Your task to perform on an android device: turn on notifications settings in the gmail app Image 0: 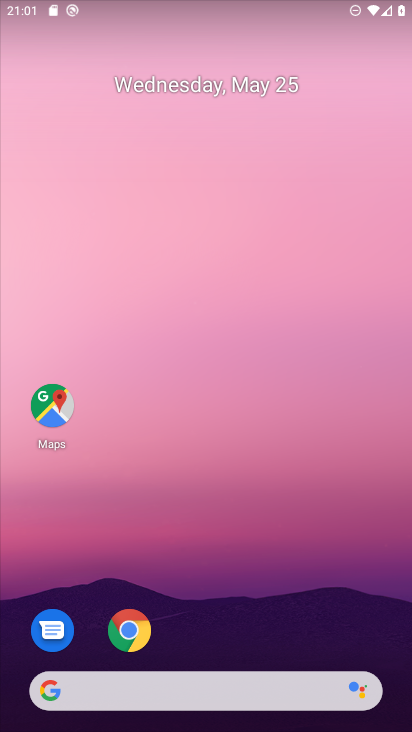
Step 0: drag from (240, 640) to (281, 210)
Your task to perform on an android device: turn on notifications settings in the gmail app Image 1: 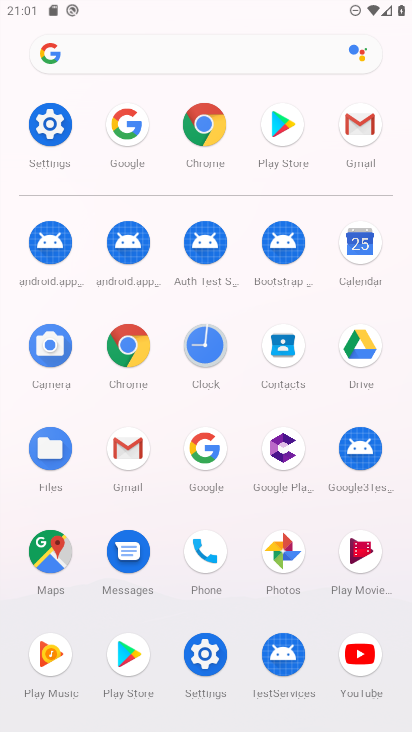
Step 1: click (126, 450)
Your task to perform on an android device: turn on notifications settings in the gmail app Image 2: 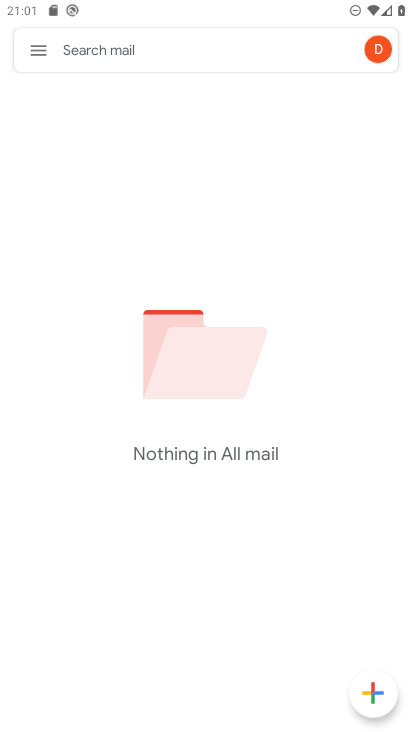
Step 2: drag from (32, 45) to (134, 71)
Your task to perform on an android device: turn on notifications settings in the gmail app Image 3: 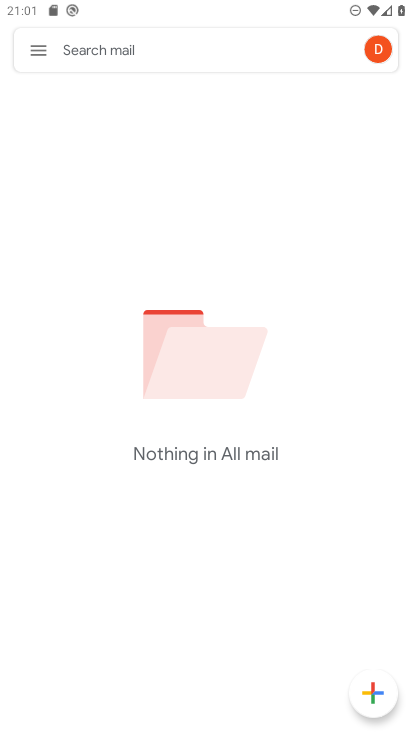
Step 3: click (38, 56)
Your task to perform on an android device: turn on notifications settings in the gmail app Image 4: 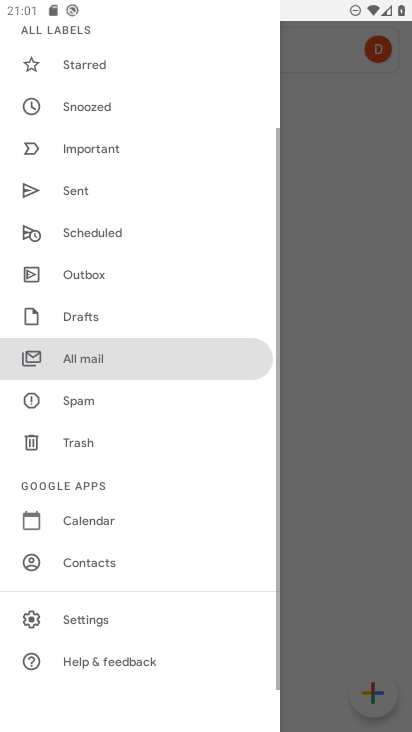
Step 4: click (111, 615)
Your task to perform on an android device: turn on notifications settings in the gmail app Image 5: 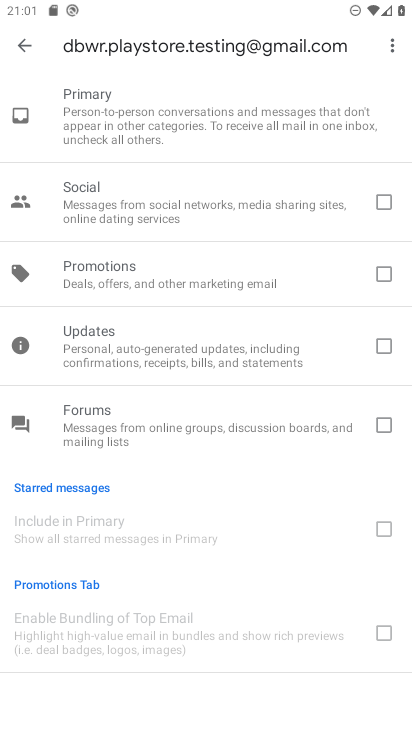
Step 5: drag from (181, 562) to (178, 238)
Your task to perform on an android device: turn on notifications settings in the gmail app Image 6: 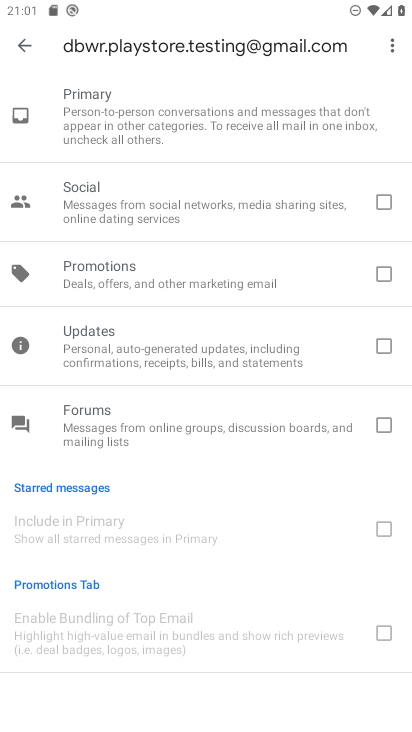
Step 6: press back button
Your task to perform on an android device: turn on notifications settings in the gmail app Image 7: 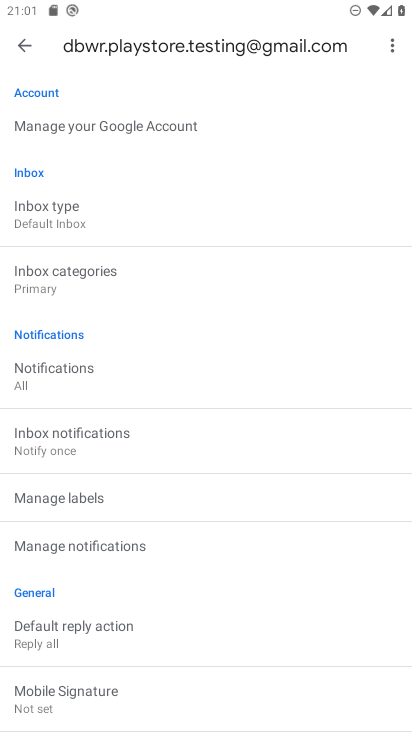
Step 7: click (33, 390)
Your task to perform on an android device: turn on notifications settings in the gmail app Image 8: 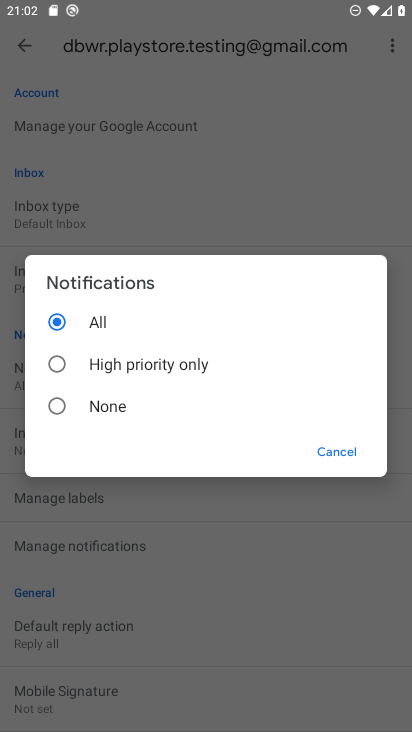
Step 8: task complete